Your task to perform on an android device: set default search engine in the chrome app Image 0: 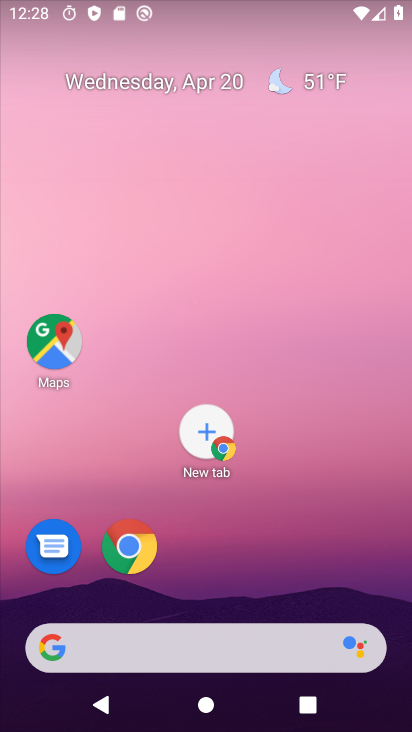
Step 0: click (115, 560)
Your task to perform on an android device: set default search engine in the chrome app Image 1: 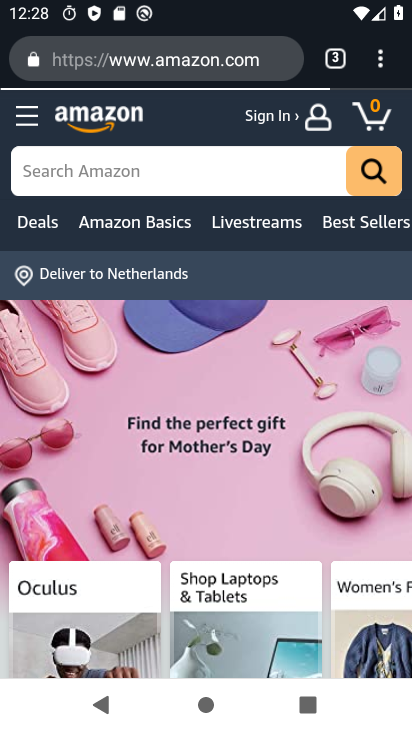
Step 1: click (381, 65)
Your task to perform on an android device: set default search engine in the chrome app Image 2: 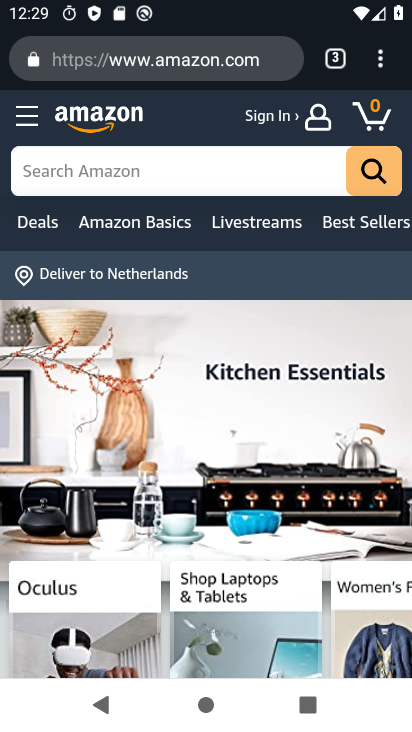
Step 2: click (384, 53)
Your task to perform on an android device: set default search engine in the chrome app Image 3: 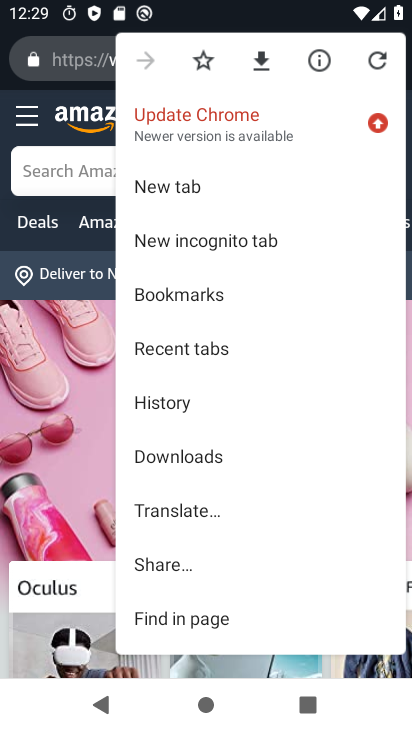
Step 3: drag from (220, 532) to (261, 83)
Your task to perform on an android device: set default search engine in the chrome app Image 4: 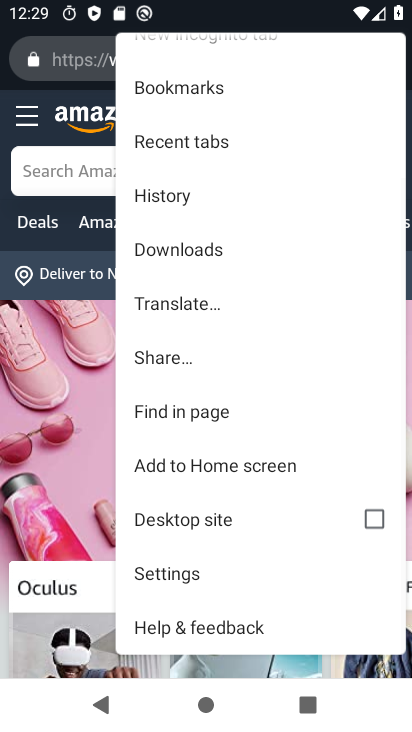
Step 4: click (168, 570)
Your task to perform on an android device: set default search engine in the chrome app Image 5: 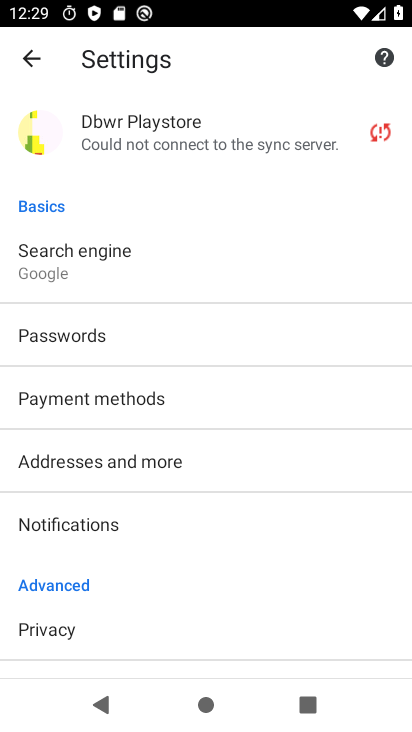
Step 5: click (131, 285)
Your task to perform on an android device: set default search engine in the chrome app Image 6: 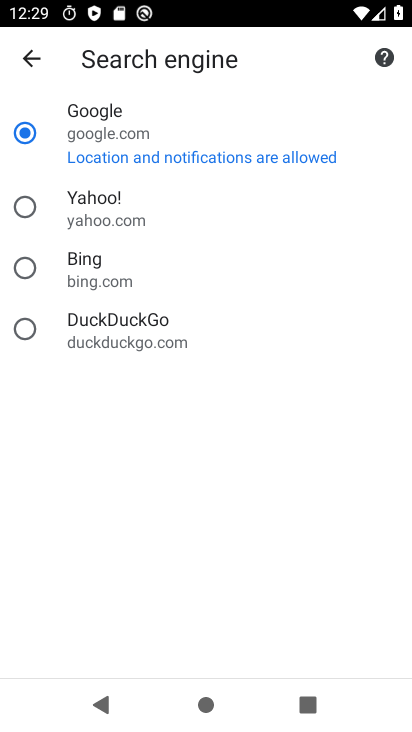
Step 6: click (131, 285)
Your task to perform on an android device: set default search engine in the chrome app Image 7: 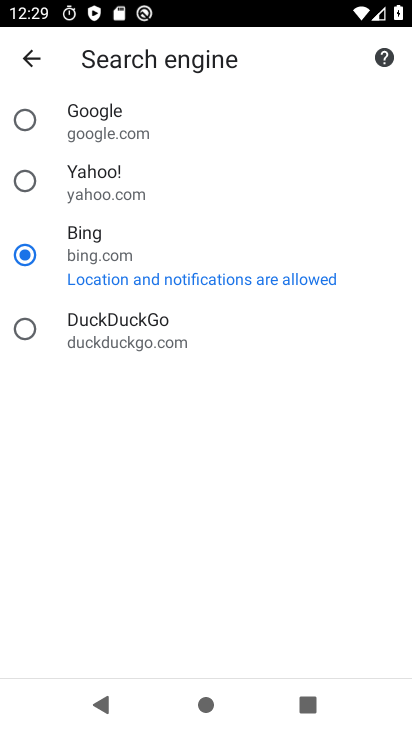
Step 7: task complete